Your task to perform on an android device: Find coffee shops on Maps Image 0: 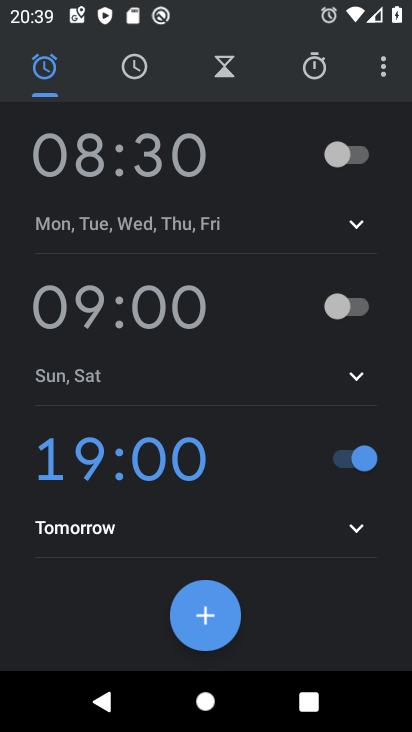
Step 0: press home button
Your task to perform on an android device: Find coffee shops on Maps Image 1: 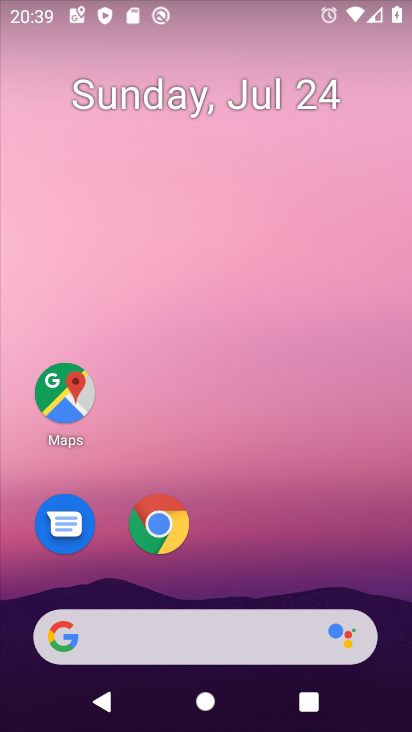
Step 1: click (71, 395)
Your task to perform on an android device: Find coffee shops on Maps Image 2: 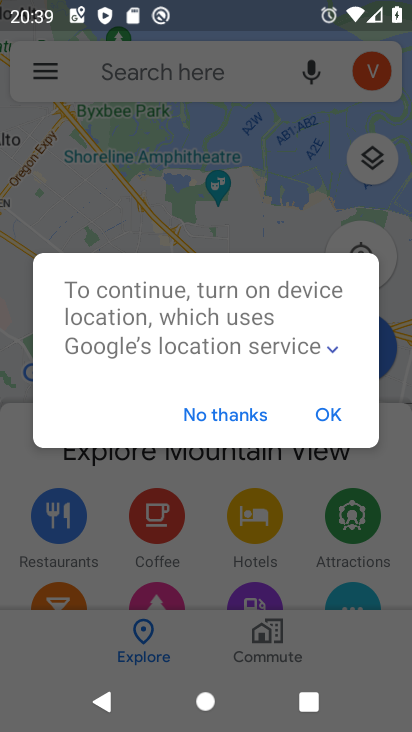
Step 2: click (321, 408)
Your task to perform on an android device: Find coffee shops on Maps Image 3: 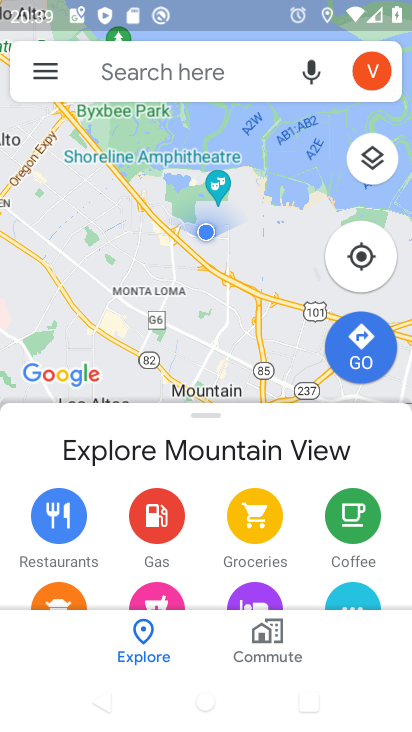
Step 3: click (230, 70)
Your task to perform on an android device: Find coffee shops on Maps Image 4: 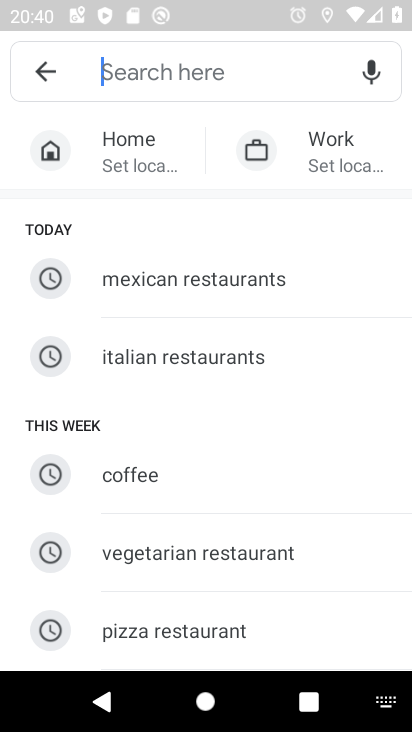
Step 4: click (138, 466)
Your task to perform on an android device: Find coffee shops on Maps Image 5: 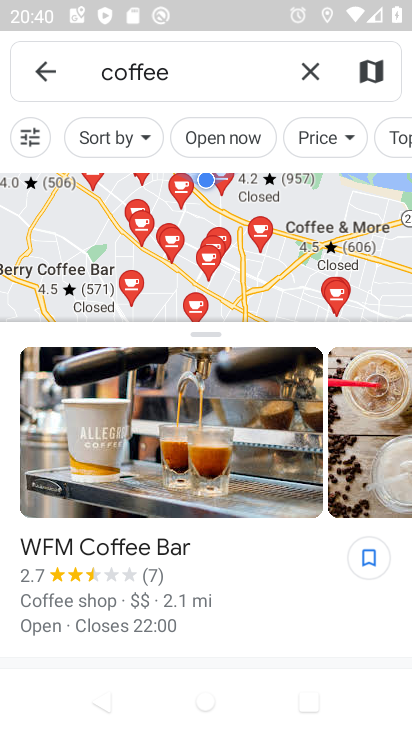
Step 5: task complete